Your task to perform on an android device: turn off javascript in the chrome app Image 0: 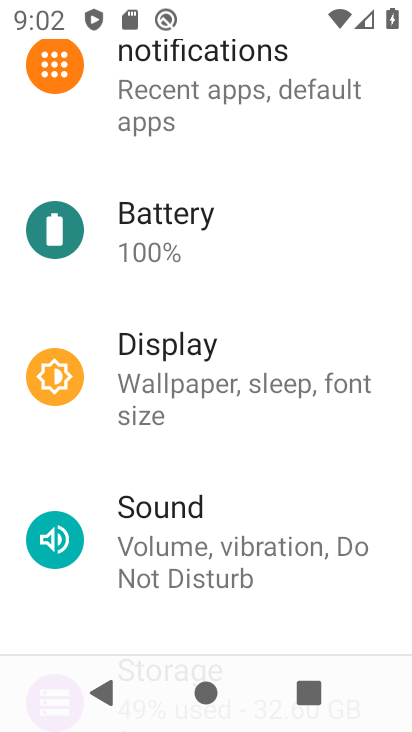
Step 0: press home button
Your task to perform on an android device: turn off javascript in the chrome app Image 1: 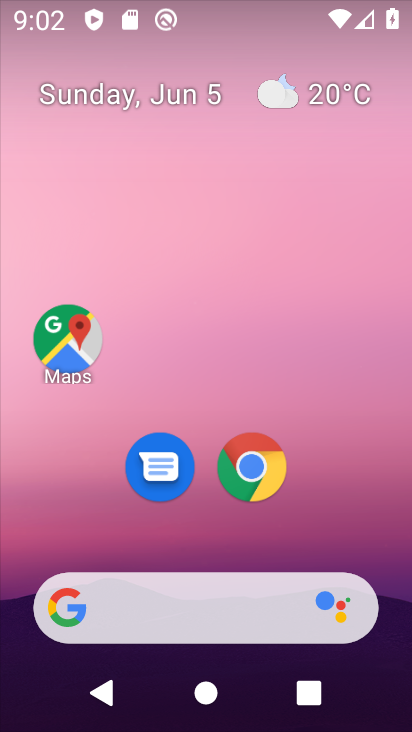
Step 1: click (251, 475)
Your task to perform on an android device: turn off javascript in the chrome app Image 2: 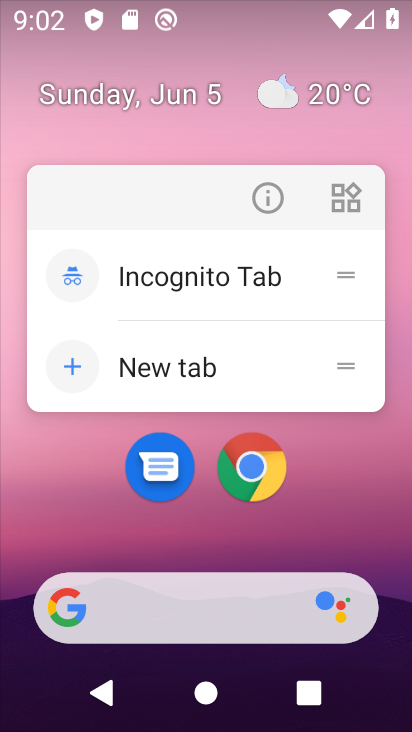
Step 2: click (251, 474)
Your task to perform on an android device: turn off javascript in the chrome app Image 3: 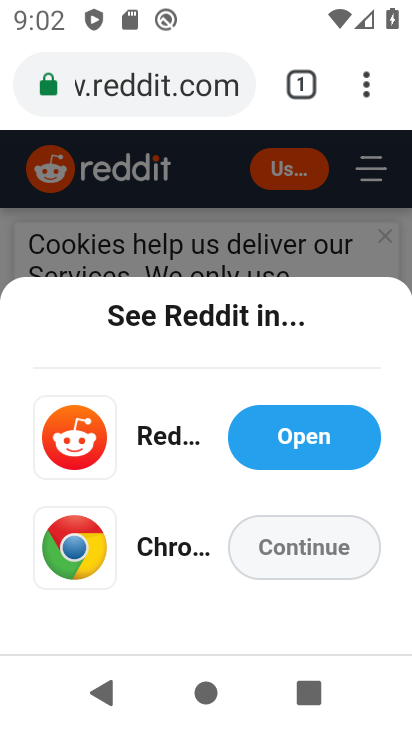
Step 3: click (355, 85)
Your task to perform on an android device: turn off javascript in the chrome app Image 4: 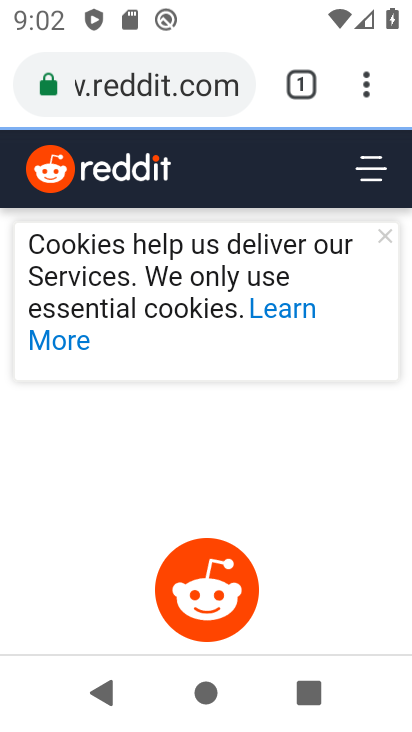
Step 4: click (356, 86)
Your task to perform on an android device: turn off javascript in the chrome app Image 5: 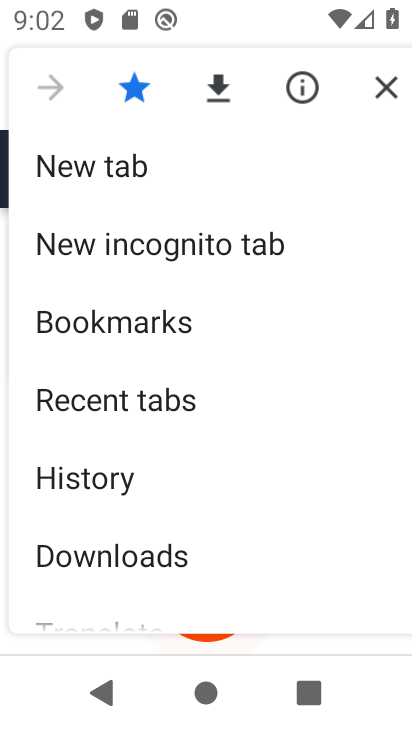
Step 5: drag from (134, 564) to (121, 129)
Your task to perform on an android device: turn off javascript in the chrome app Image 6: 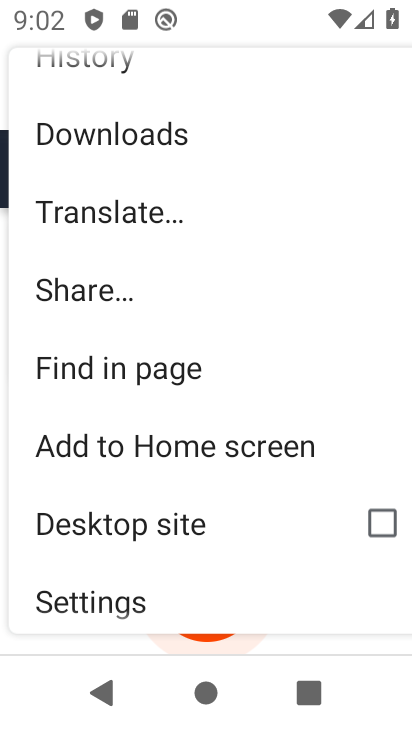
Step 6: click (140, 580)
Your task to perform on an android device: turn off javascript in the chrome app Image 7: 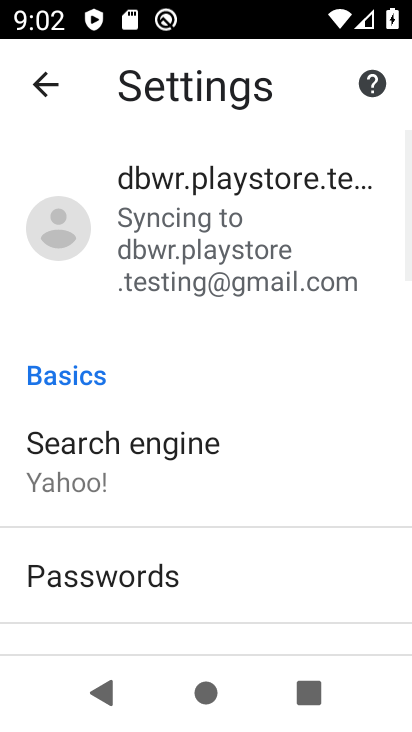
Step 7: drag from (178, 568) to (127, 196)
Your task to perform on an android device: turn off javascript in the chrome app Image 8: 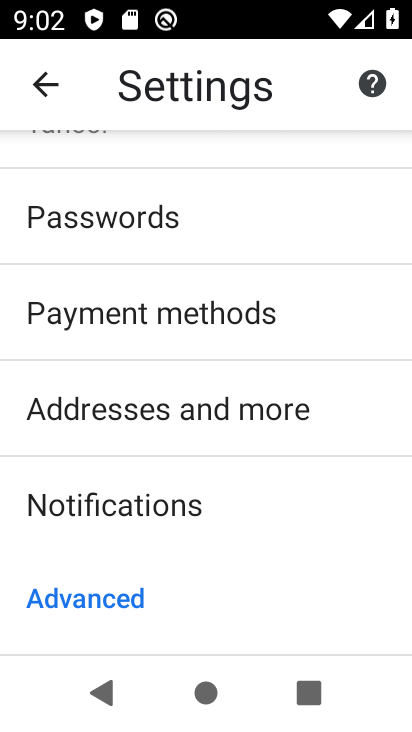
Step 8: drag from (165, 563) to (141, 199)
Your task to perform on an android device: turn off javascript in the chrome app Image 9: 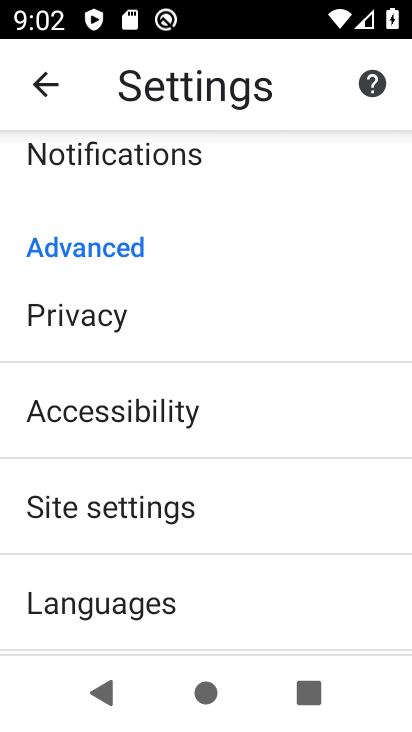
Step 9: click (136, 512)
Your task to perform on an android device: turn off javascript in the chrome app Image 10: 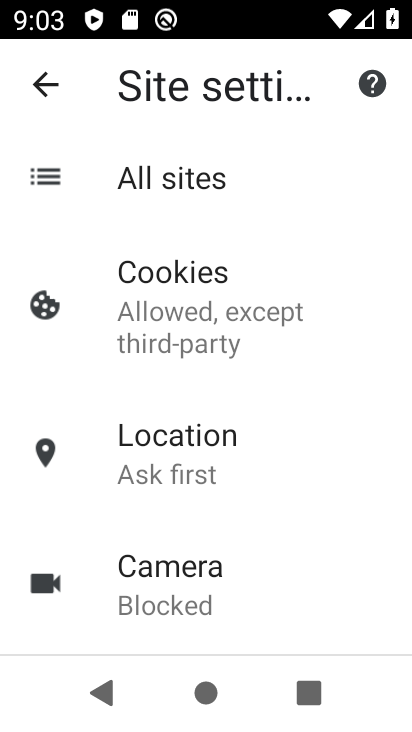
Step 10: drag from (108, 566) to (114, 131)
Your task to perform on an android device: turn off javascript in the chrome app Image 11: 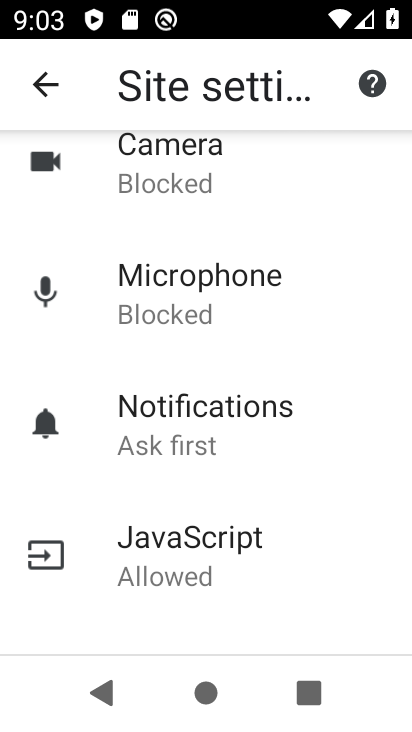
Step 11: click (137, 584)
Your task to perform on an android device: turn off javascript in the chrome app Image 12: 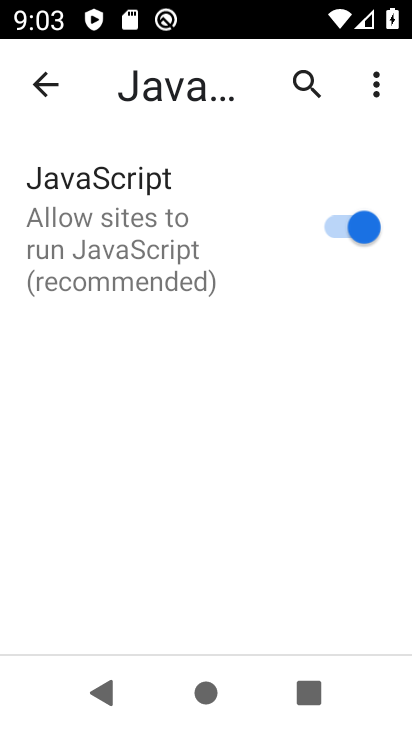
Step 12: click (345, 225)
Your task to perform on an android device: turn off javascript in the chrome app Image 13: 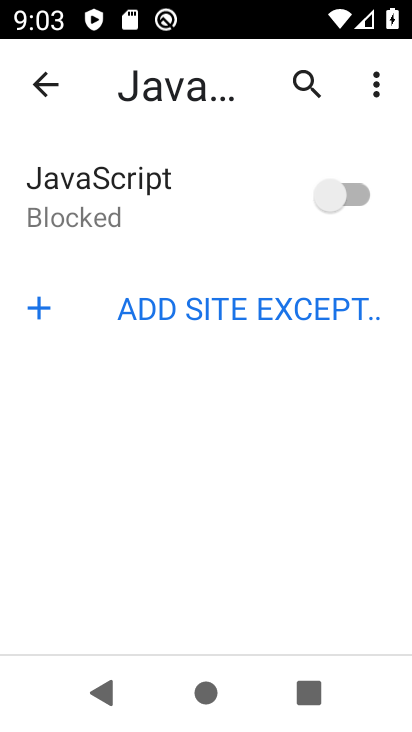
Step 13: task complete